Your task to perform on an android device: turn on notifications settings in the gmail app Image 0: 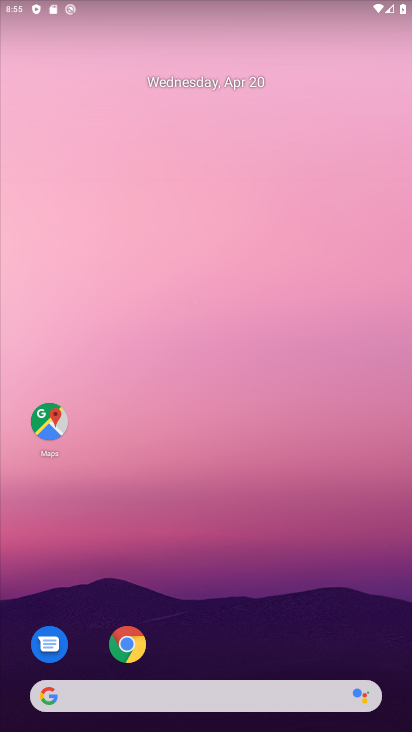
Step 0: drag from (214, 683) to (255, 268)
Your task to perform on an android device: turn on notifications settings in the gmail app Image 1: 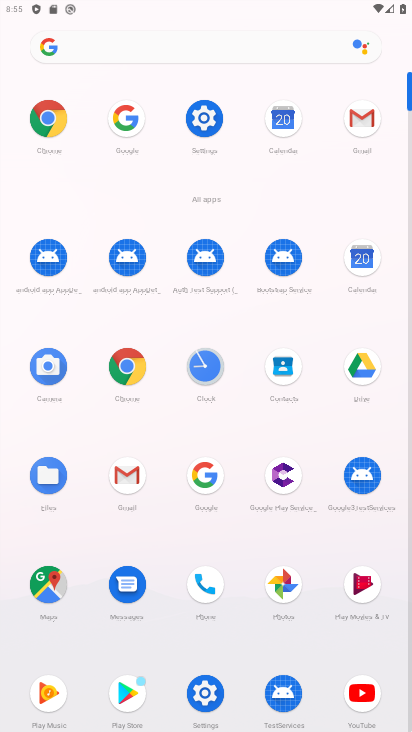
Step 1: click (359, 120)
Your task to perform on an android device: turn on notifications settings in the gmail app Image 2: 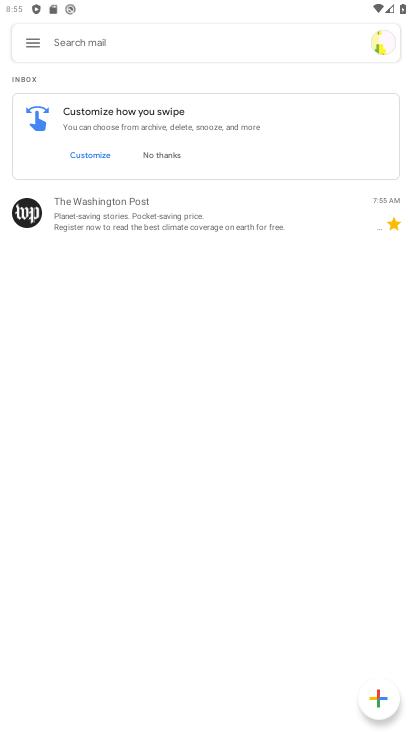
Step 2: click (32, 47)
Your task to perform on an android device: turn on notifications settings in the gmail app Image 3: 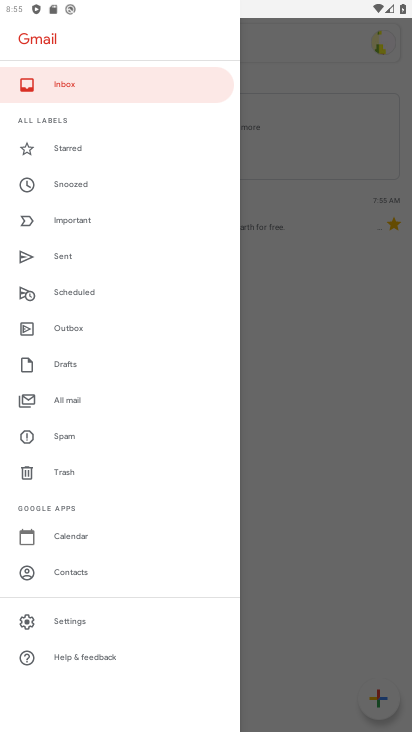
Step 3: click (73, 621)
Your task to perform on an android device: turn on notifications settings in the gmail app Image 4: 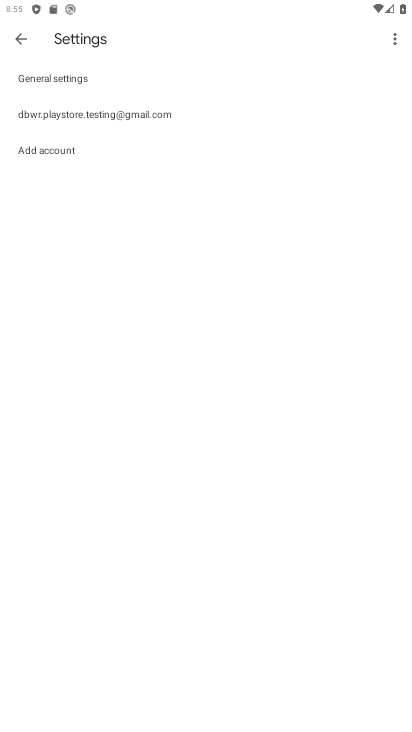
Step 4: click (66, 81)
Your task to perform on an android device: turn on notifications settings in the gmail app Image 5: 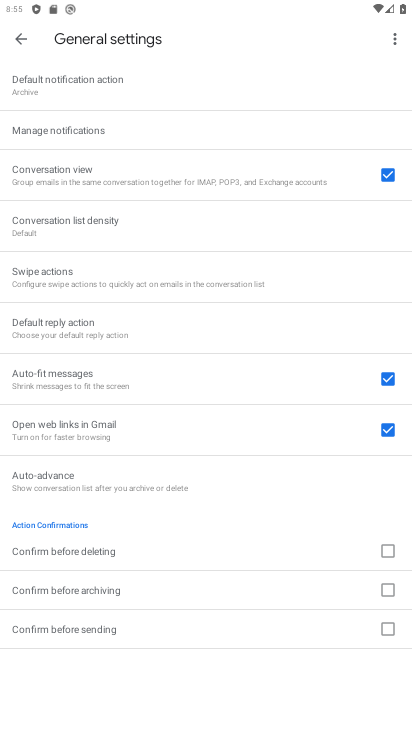
Step 5: click (89, 133)
Your task to perform on an android device: turn on notifications settings in the gmail app Image 6: 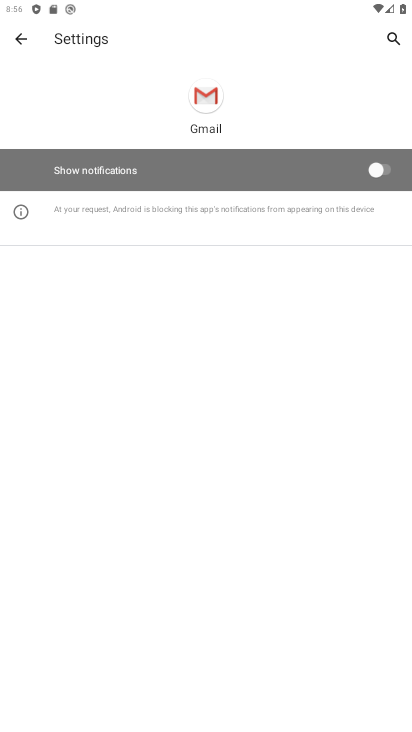
Step 6: click (389, 173)
Your task to perform on an android device: turn on notifications settings in the gmail app Image 7: 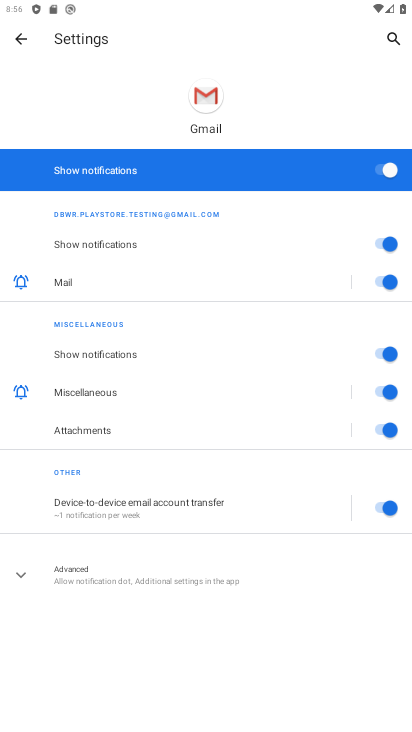
Step 7: task complete